Your task to perform on an android device: turn off location history Image 0: 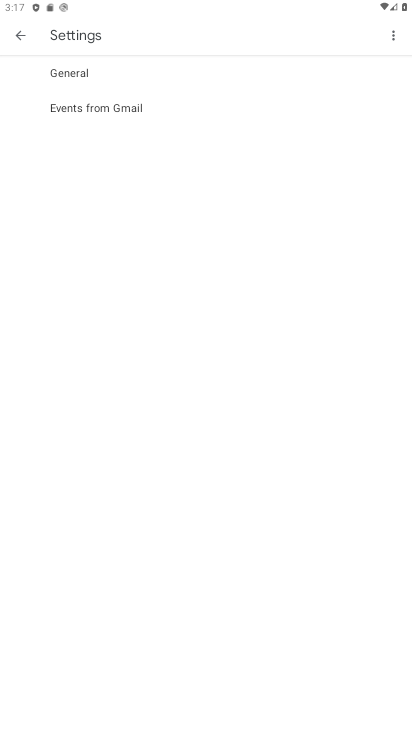
Step 0: press home button
Your task to perform on an android device: turn off location history Image 1: 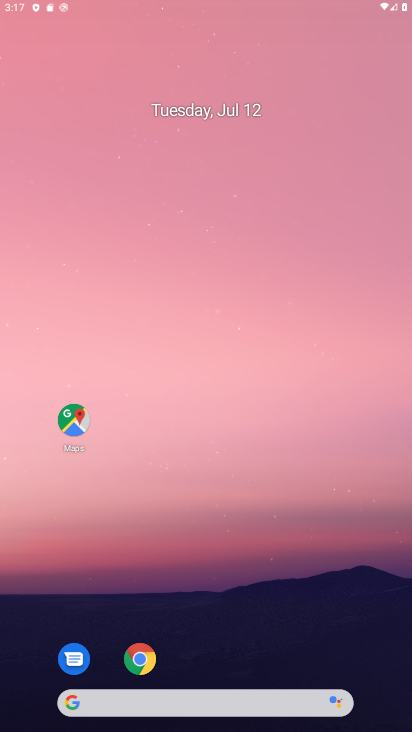
Step 1: drag from (212, 658) to (216, 119)
Your task to perform on an android device: turn off location history Image 2: 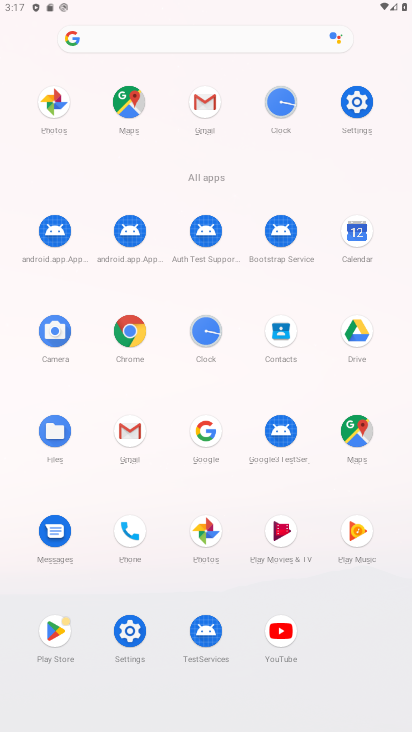
Step 2: click (357, 106)
Your task to perform on an android device: turn off location history Image 3: 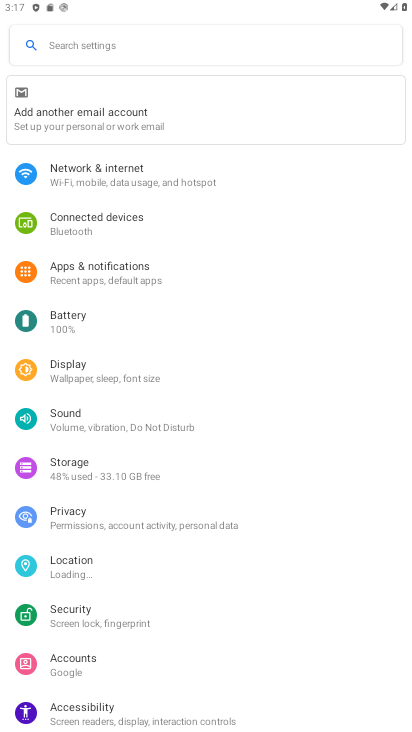
Step 3: click (85, 561)
Your task to perform on an android device: turn off location history Image 4: 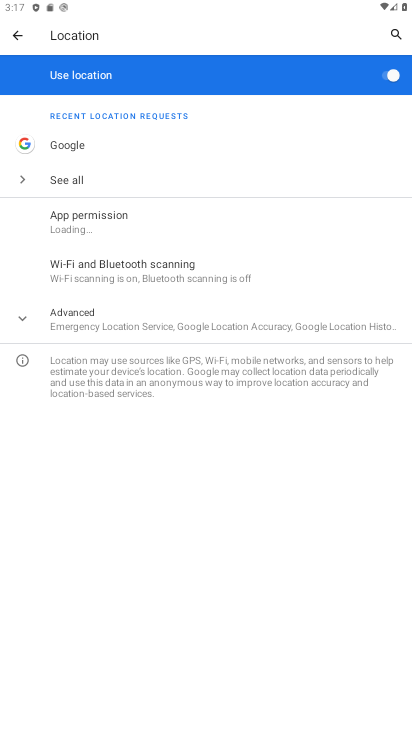
Step 4: click (93, 319)
Your task to perform on an android device: turn off location history Image 5: 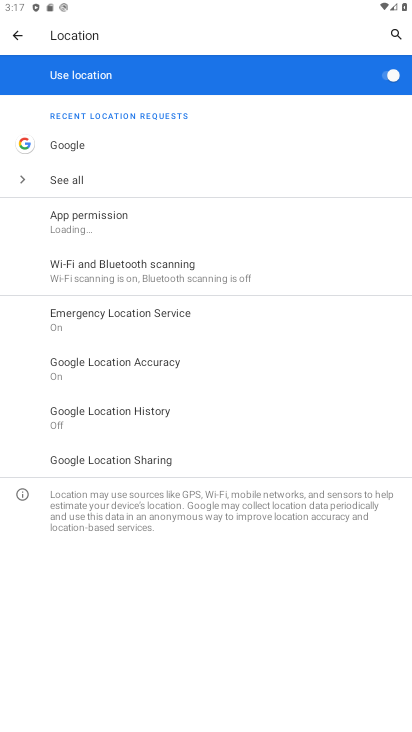
Step 5: click (142, 414)
Your task to perform on an android device: turn off location history Image 6: 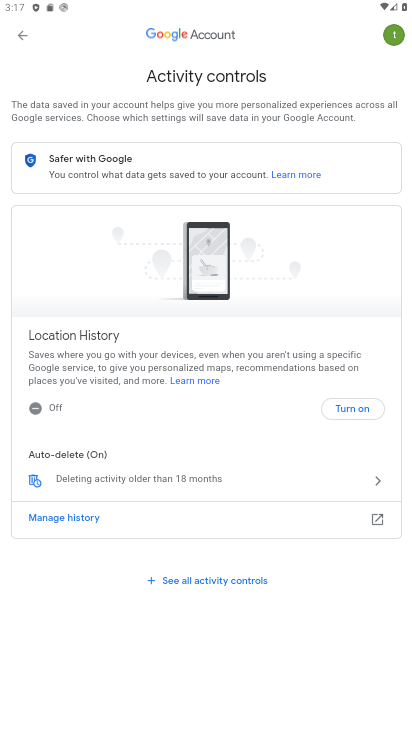
Step 6: task complete